Your task to perform on an android device: Open Google Chrome and click the shortcut for Amazon.com Image 0: 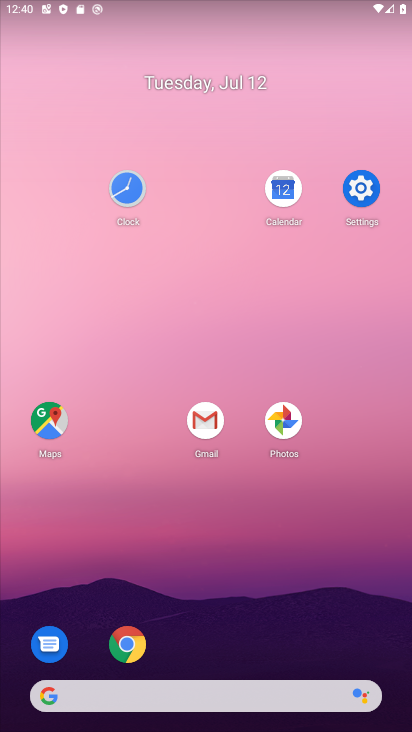
Step 0: click (124, 639)
Your task to perform on an android device: Open Google Chrome and click the shortcut for Amazon.com Image 1: 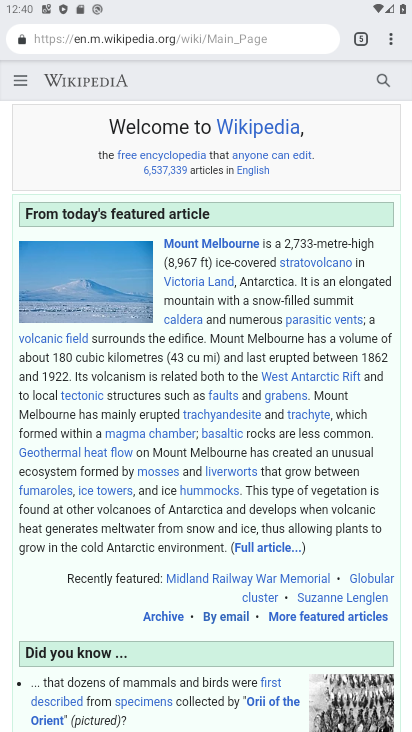
Step 1: click (362, 38)
Your task to perform on an android device: Open Google Chrome and click the shortcut for Amazon.com Image 2: 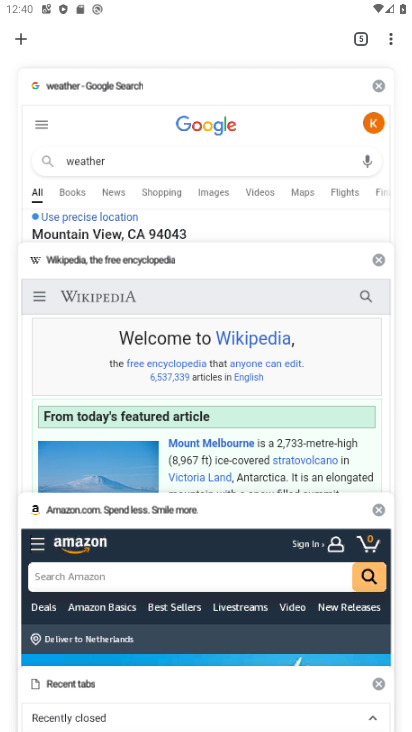
Step 2: drag from (262, 115) to (215, 451)
Your task to perform on an android device: Open Google Chrome and click the shortcut for Amazon.com Image 3: 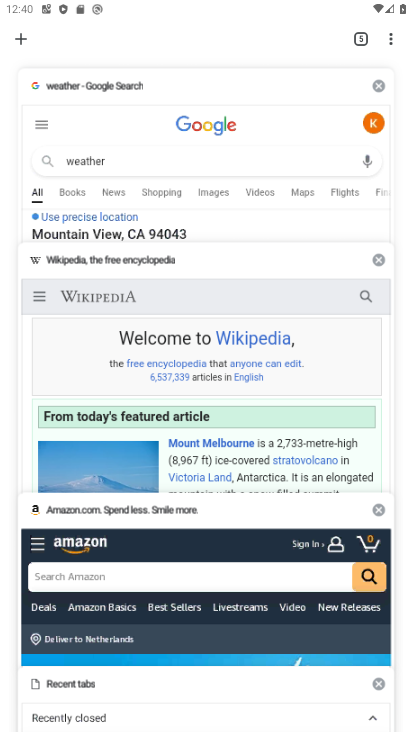
Step 3: click (164, 546)
Your task to perform on an android device: Open Google Chrome and click the shortcut for Amazon.com Image 4: 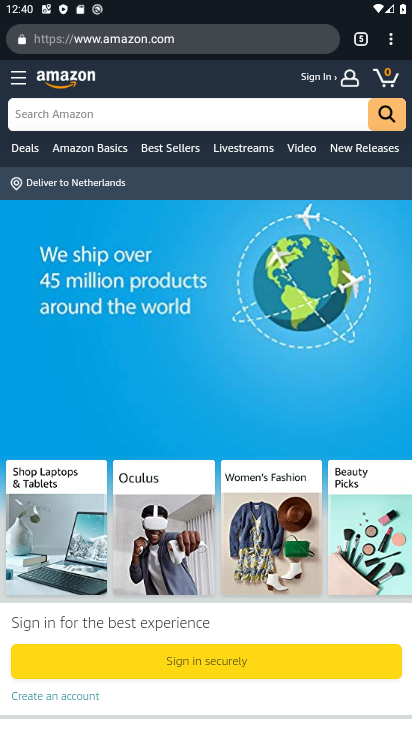
Step 4: click (387, 39)
Your task to perform on an android device: Open Google Chrome and click the shortcut for Amazon.com Image 5: 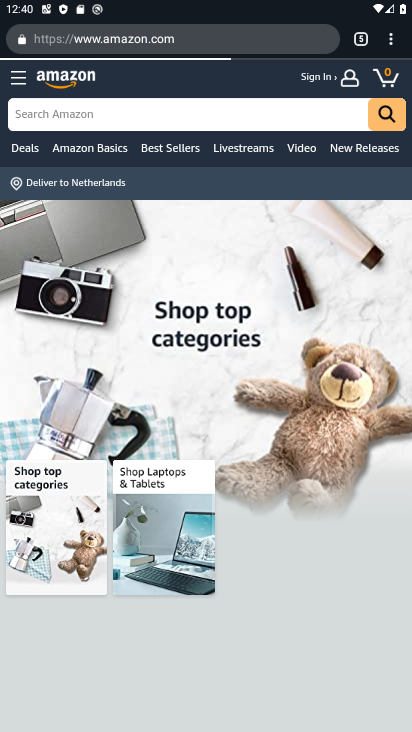
Step 5: click (389, 28)
Your task to perform on an android device: Open Google Chrome and click the shortcut for Amazon.com Image 6: 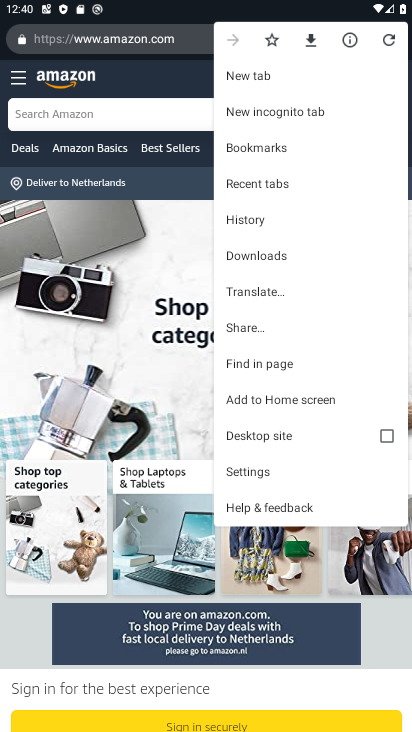
Step 6: click (262, 402)
Your task to perform on an android device: Open Google Chrome and click the shortcut for Amazon.com Image 7: 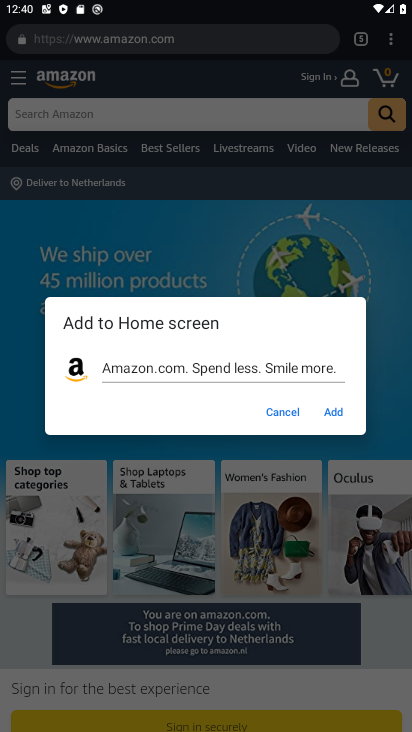
Step 7: click (335, 413)
Your task to perform on an android device: Open Google Chrome and click the shortcut for Amazon.com Image 8: 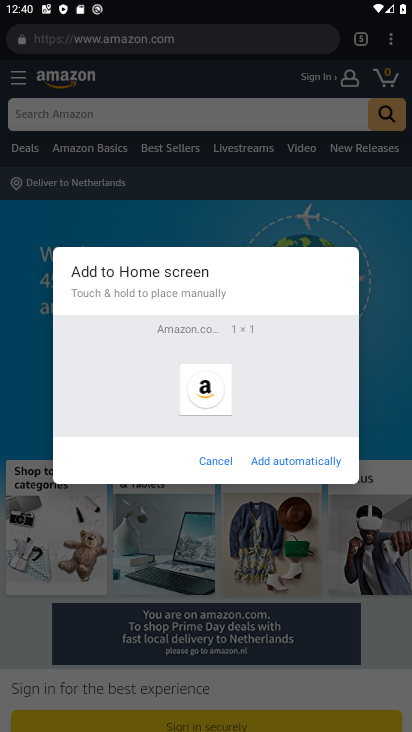
Step 8: click (309, 463)
Your task to perform on an android device: Open Google Chrome and click the shortcut for Amazon.com Image 9: 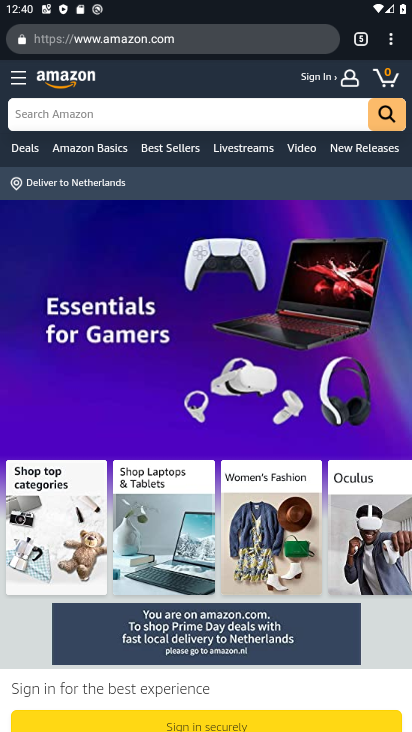
Step 9: task complete